Your task to perform on an android device: Open the web browser Image 0: 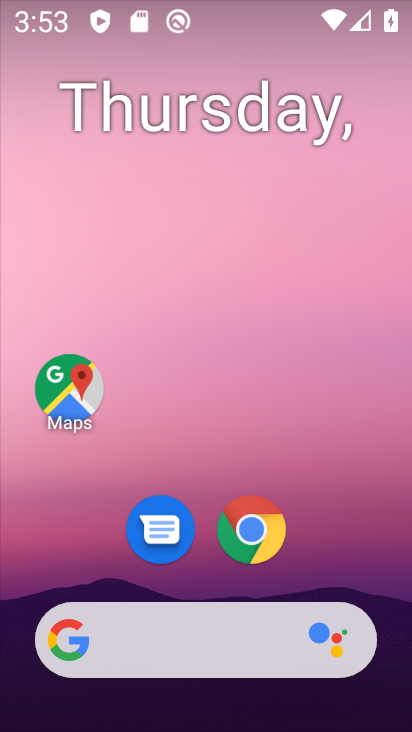
Step 0: click (252, 532)
Your task to perform on an android device: Open the web browser Image 1: 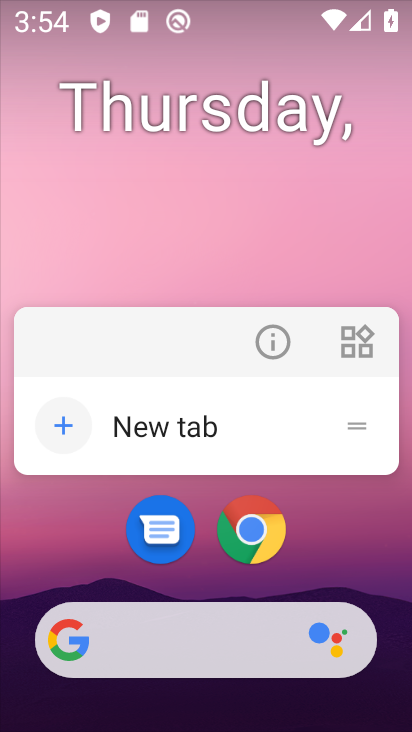
Step 1: click (252, 532)
Your task to perform on an android device: Open the web browser Image 2: 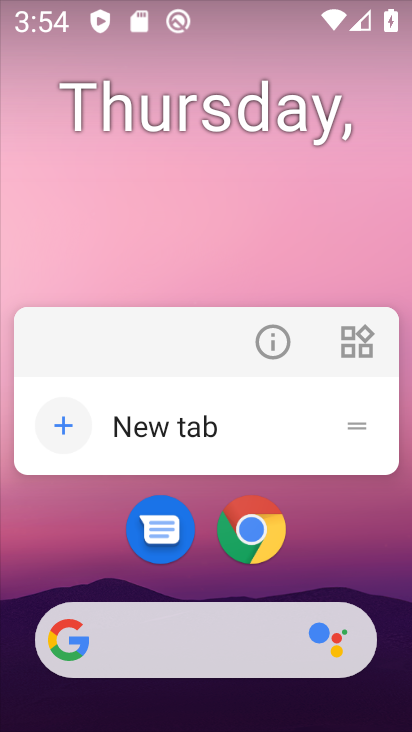
Step 2: click (252, 532)
Your task to perform on an android device: Open the web browser Image 3: 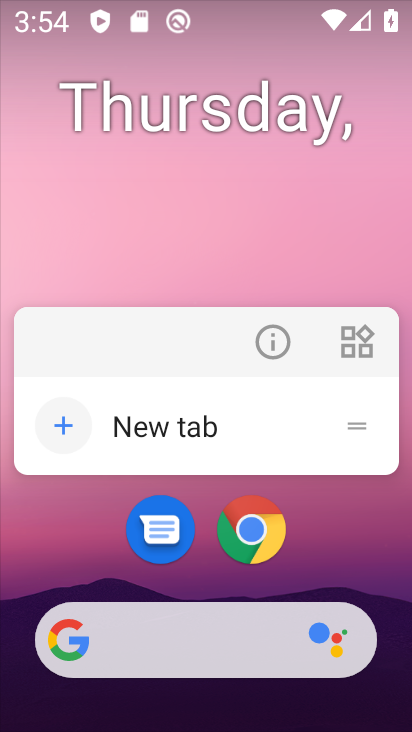
Step 3: click (252, 532)
Your task to perform on an android device: Open the web browser Image 4: 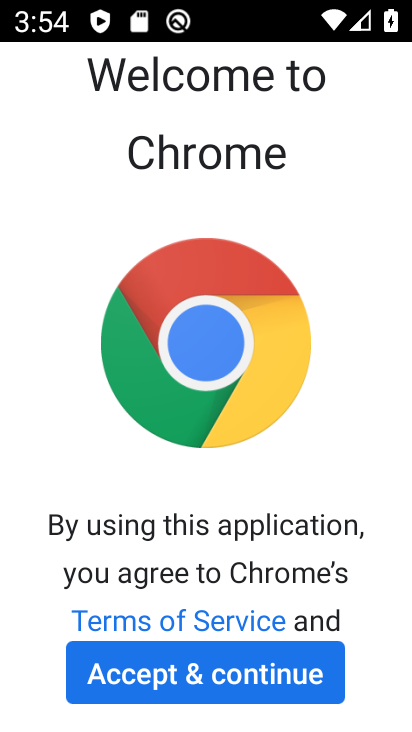
Step 4: click (178, 680)
Your task to perform on an android device: Open the web browser Image 5: 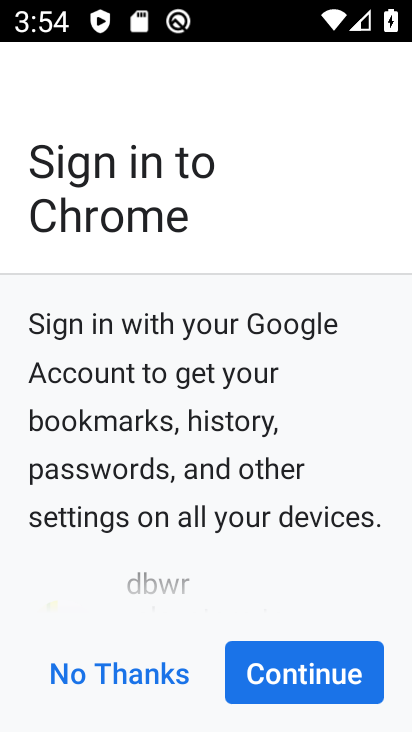
Step 5: click (282, 675)
Your task to perform on an android device: Open the web browser Image 6: 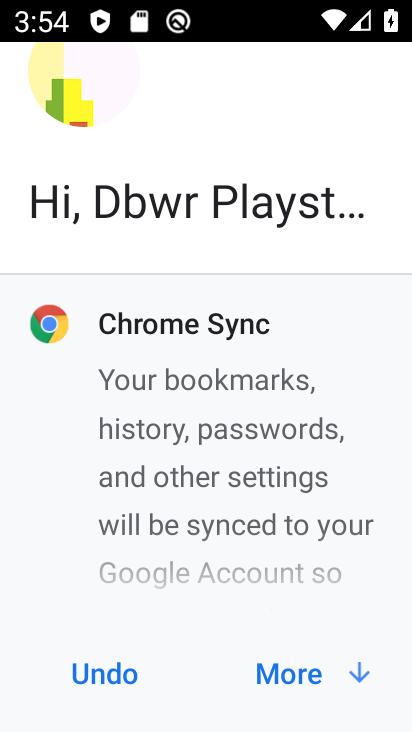
Step 6: click (282, 675)
Your task to perform on an android device: Open the web browser Image 7: 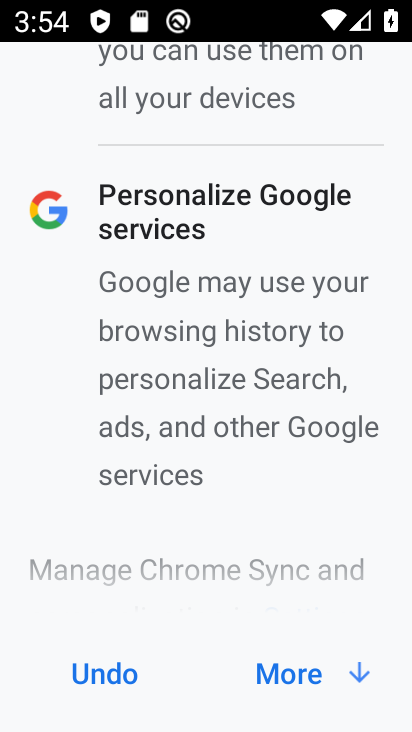
Step 7: click (283, 674)
Your task to perform on an android device: Open the web browser Image 8: 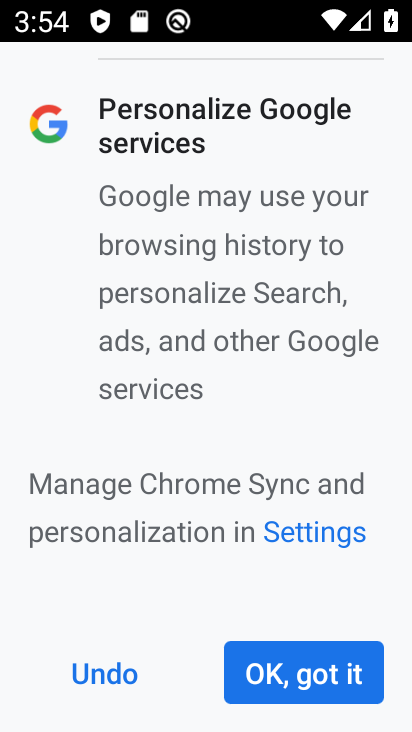
Step 8: click (283, 674)
Your task to perform on an android device: Open the web browser Image 9: 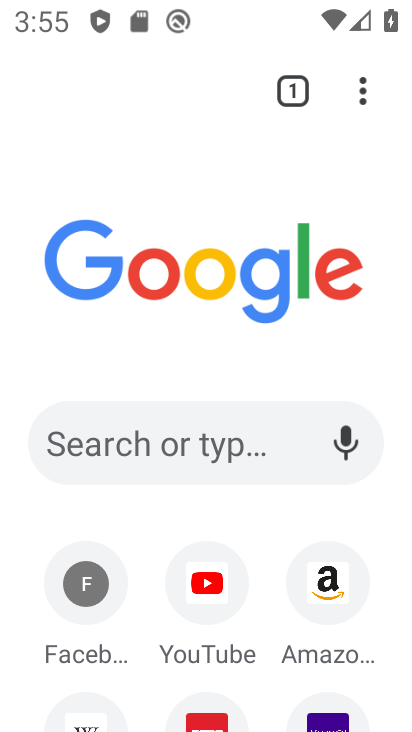
Step 9: task complete